Your task to perform on an android device: set default search engine in the chrome app Image 0: 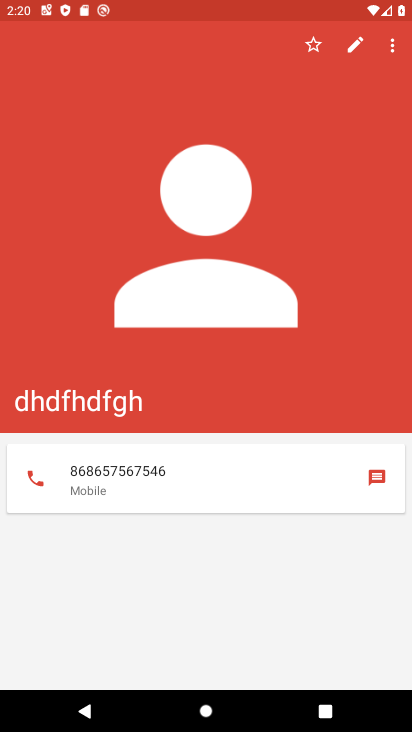
Step 0: press home button
Your task to perform on an android device: set default search engine in the chrome app Image 1: 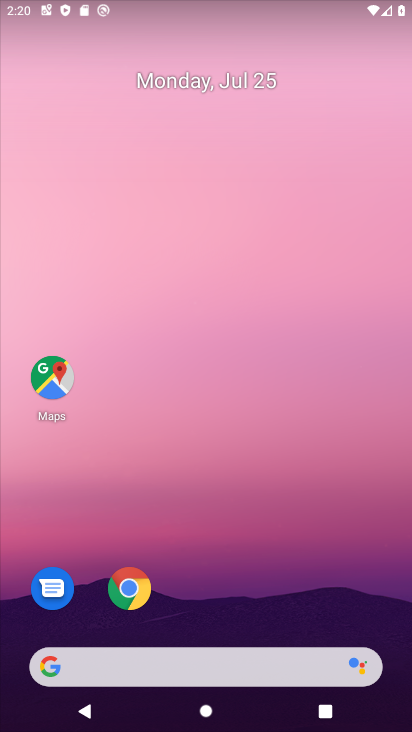
Step 1: click (143, 588)
Your task to perform on an android device: set default search engine in the chrome app Image 2: 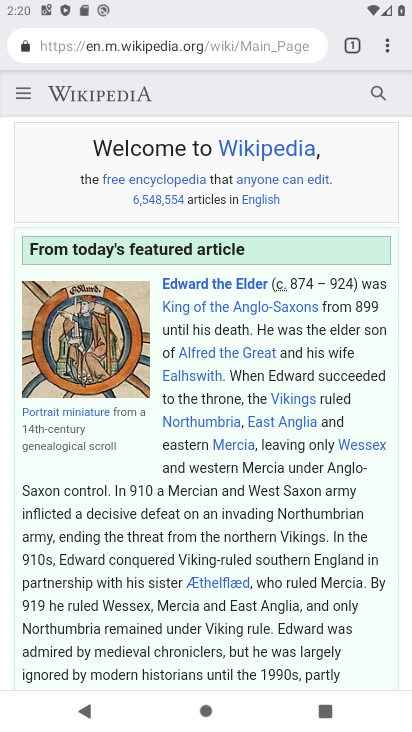
Step 2: click (380, 52)
Your task to perform on an android device: set default search engine in the chrome app Image 3: 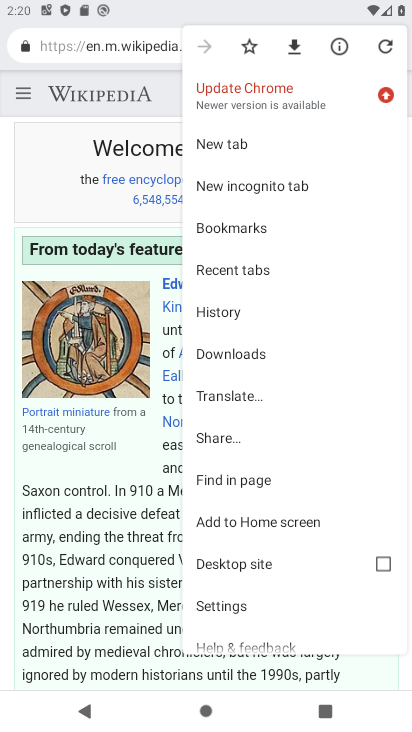
Step 3: click (279, 605)
Your task to perform on an android device: set default search engine in the chrome app Image 4: 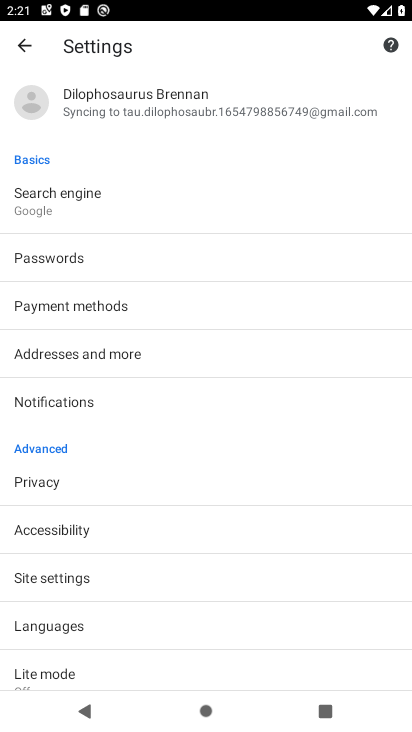
Step 4: click (58, 196)
Your task to perform on an android device: set default search engine in the chrome app Image 5: 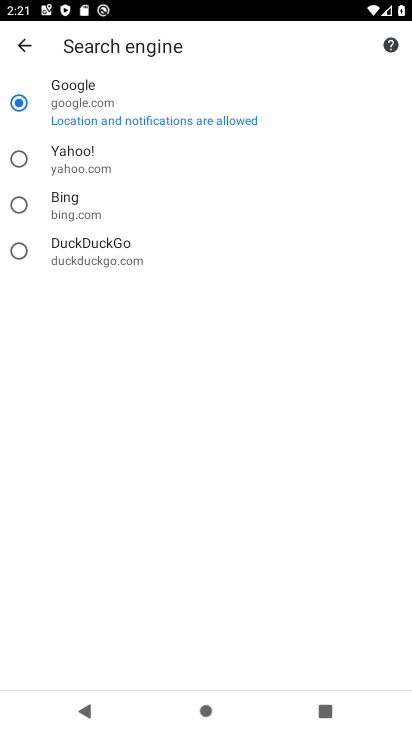
Step 5: task complete